Your task to perform on an android device: Go to battery settings Image 0: 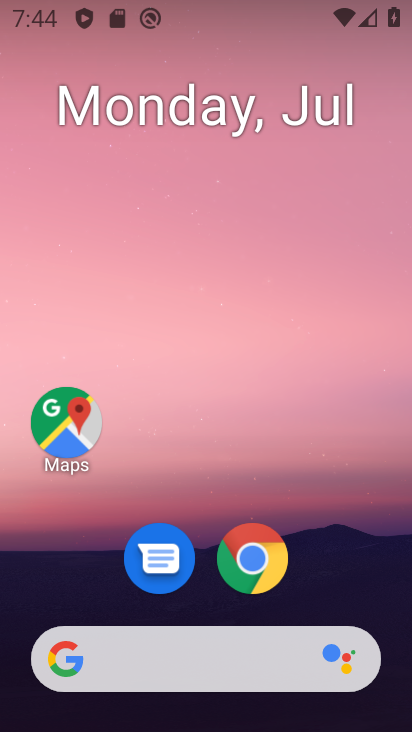
Step 0: drag from (331, 713) to (294, 61)
Your task to perform on an android device: Go to battery settings Image 1: 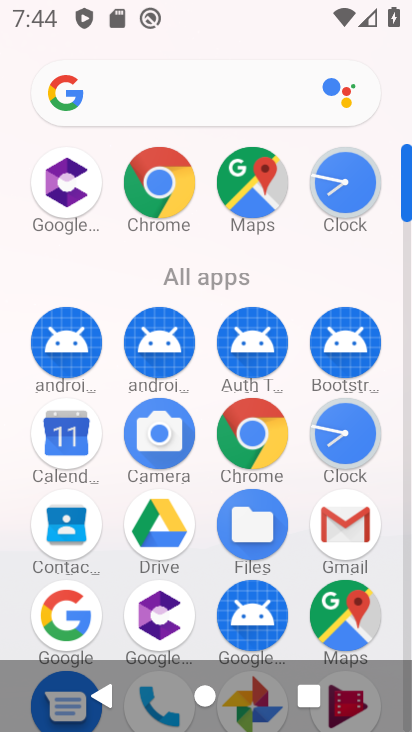
Step 1: drag from (269, 530) to (269, 39)
Your task to perform on an android device: Go to battery settings Image 2: 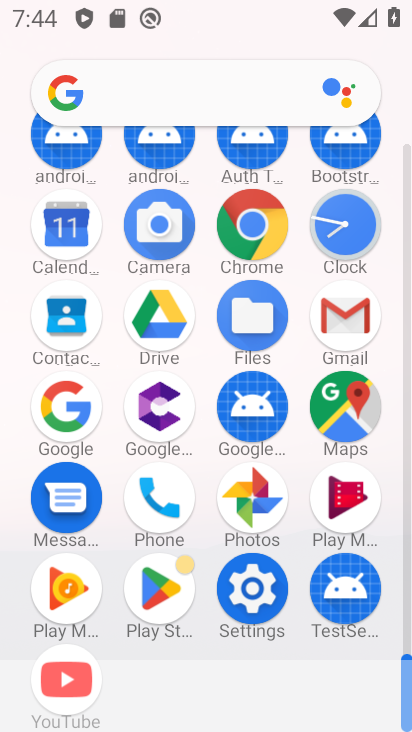
Step 2: click (249, 586)
Your task to perform on an android device: Go to battery settings Image 3: 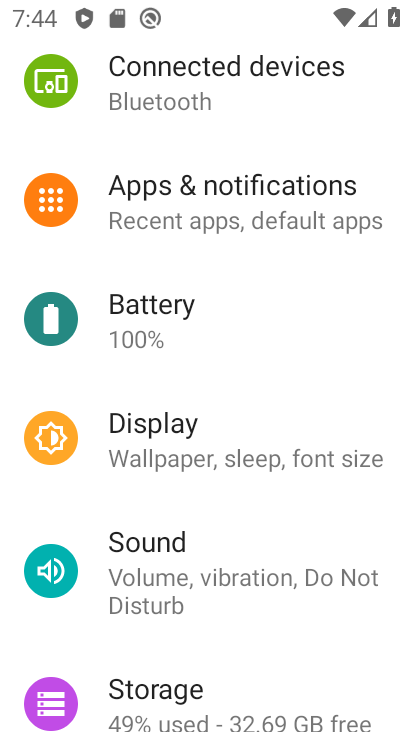
Step 3: click (158, 333)
Your task to perform on an android device: Go to battery settings Image 4: 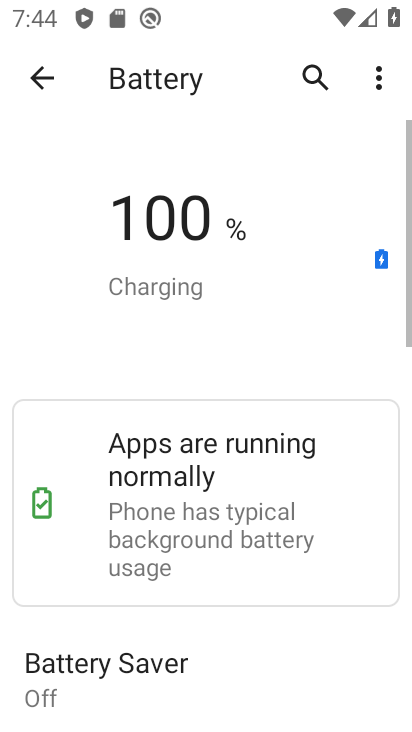
Step 4: task complete